Your task to perform on an android device: Open calendar and show me the third week of next month Image 0: 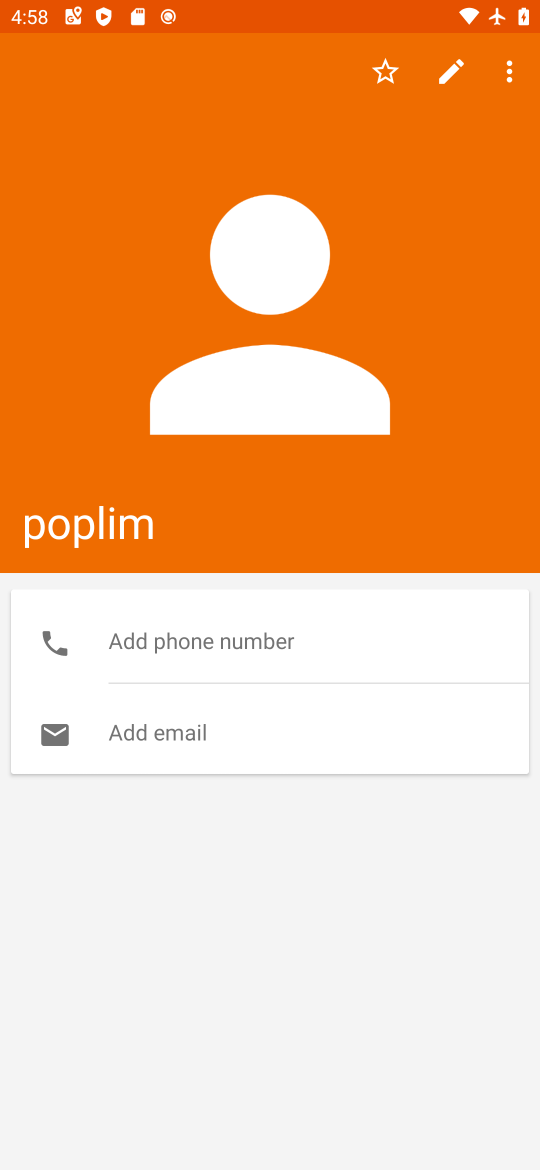
Step 0: press home button
Your task to perform on an android device: Open calendar and show me the third week of next month Image 1: 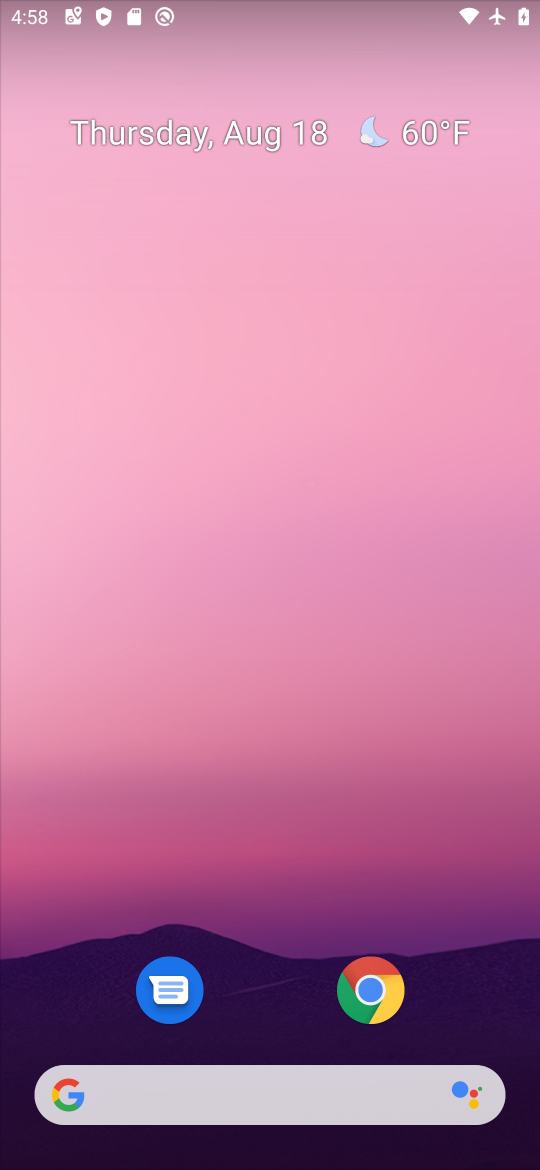
Step 1: drag from (294, 948) to (449, 8)
Your task to perform on an android device: Open calendar and show me the third week of next month Image 2: 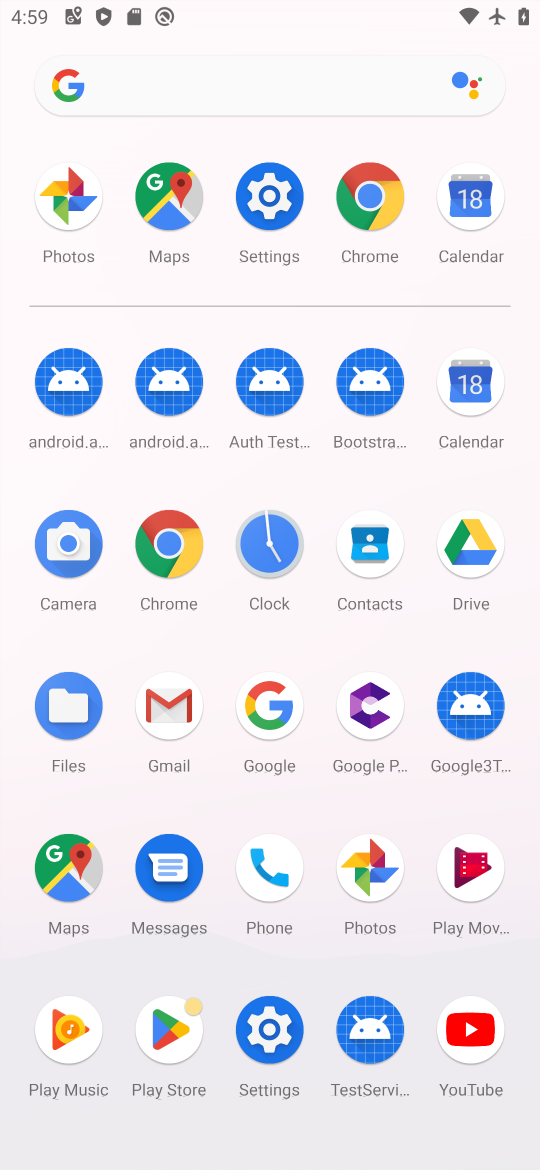
Step 2: click (463, 394)
Your task to perform on an android device: Open calendar and show me the third week of next month Image 3: 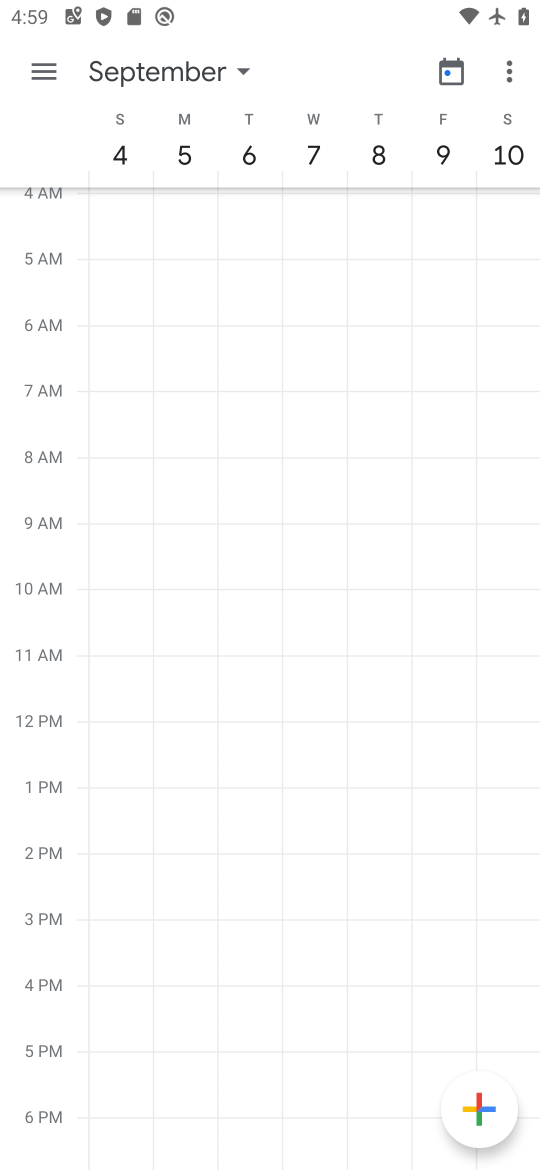
Step 3: click (41, 52)
Your task to perform on an android device: Open calendar and show me the third week of next month Image 4: 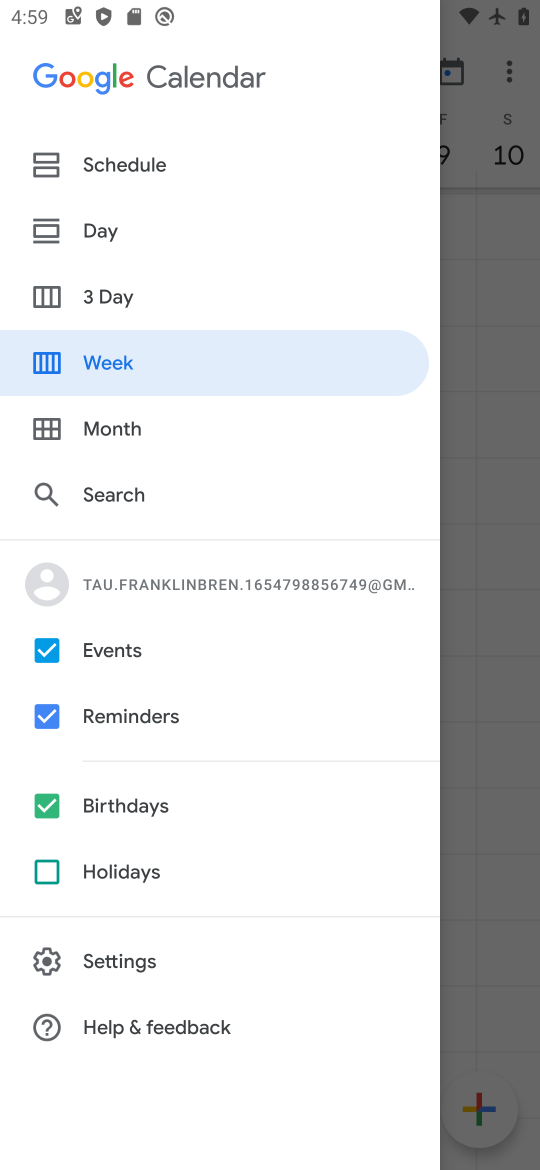
Step 4: click (115, 400)
Your task to perform on an android device: Open calendar and show me the third week of next month Image 5: 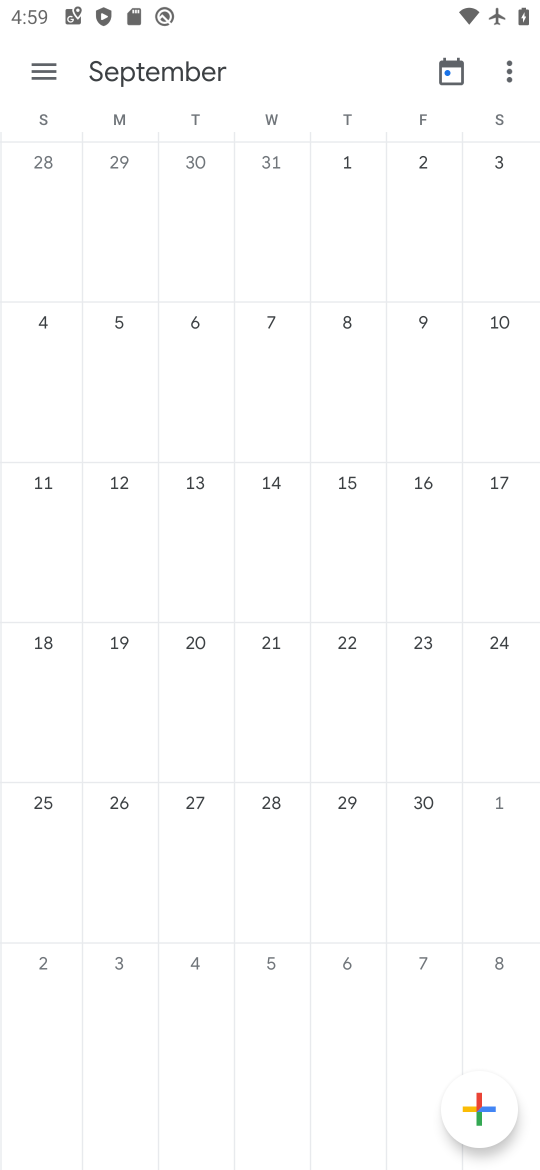
Step 5: click (189, 482)
Your task to perform on an android device: Open calendar and show me the third week of next month Image 6: 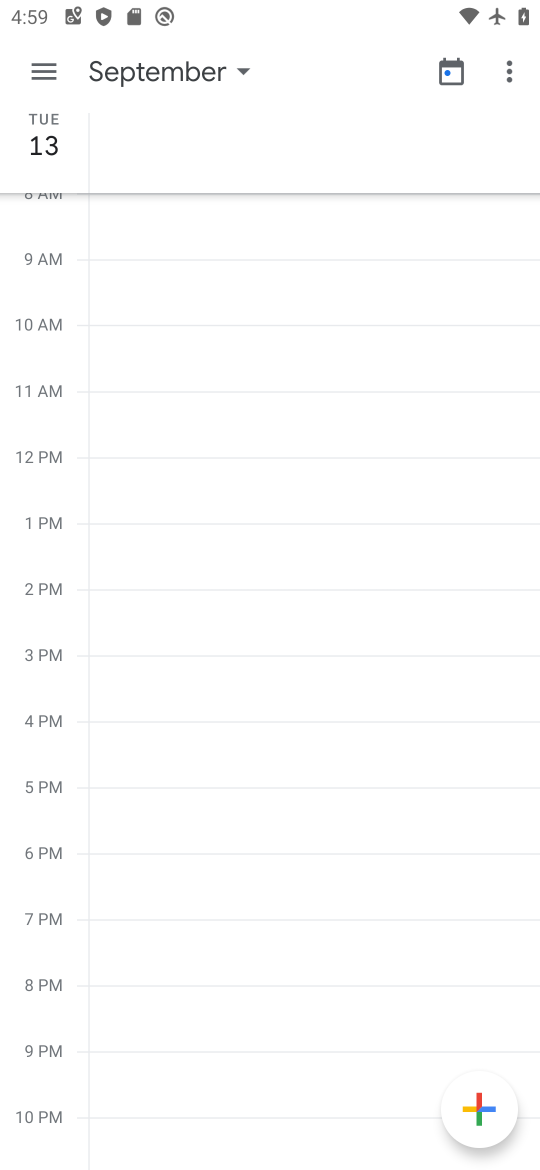
Step 6: click (42, 74)
Your task to perform on an android device: Open calendar and show me the third week of next month Image 7: 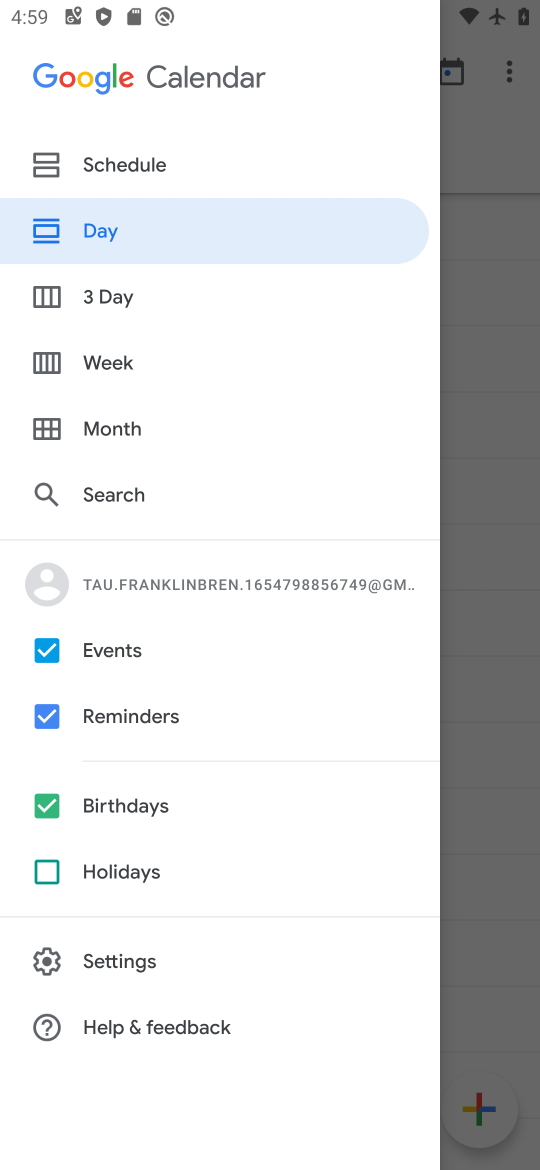
Step 7: click (120, 371)
Your task to perform on an android device: Open calendar and show me the third week of next month Image 8: 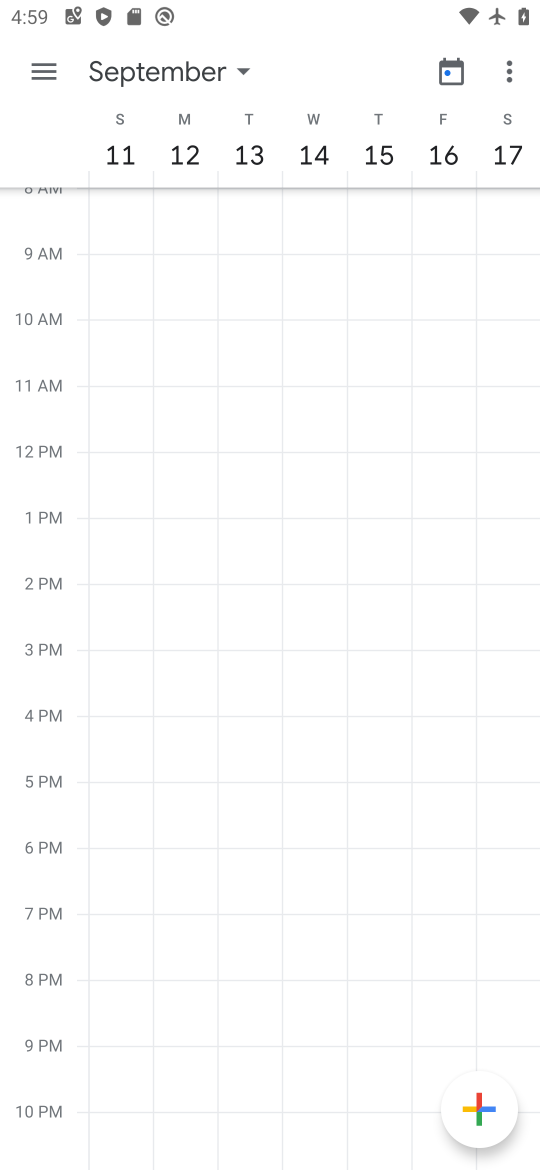
Step 8: task complete